Your task to perform on an android device: toggle pop-ups in chrome Image 0: 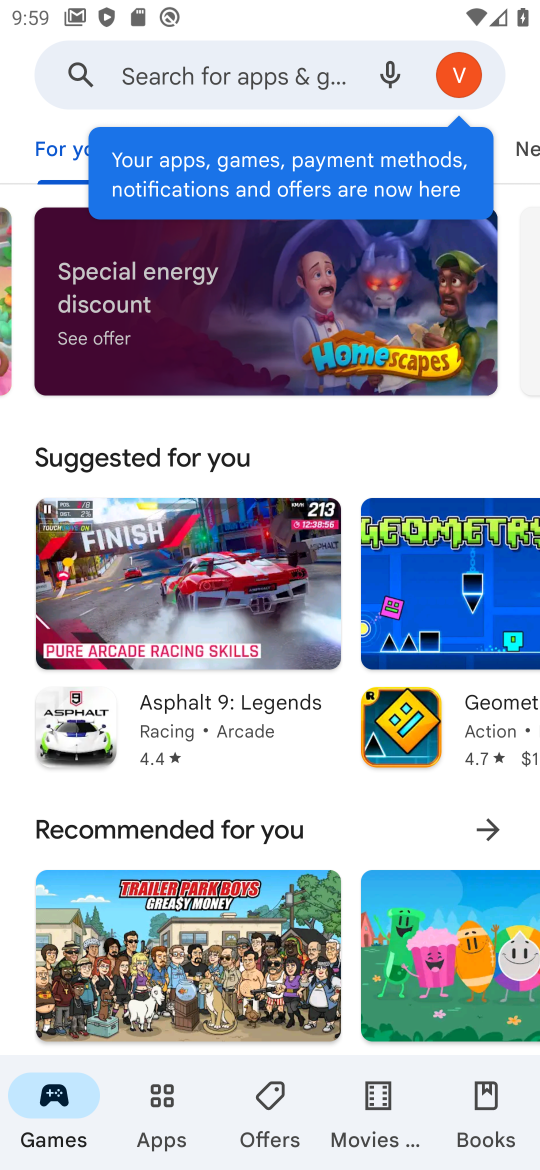
Step 0: press home button
Your task to perform on an android device: toggle pop-ups in chrome Image 1: 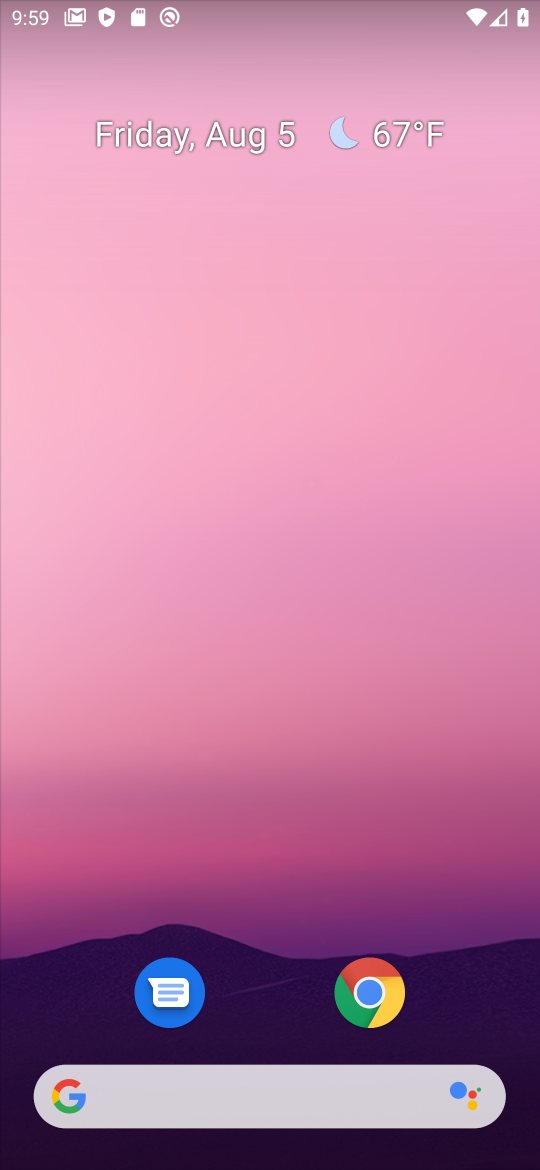
Step 1: click (364, 995)
Your task to perform on an android device: toggle pop-ups in chrome Image 2: 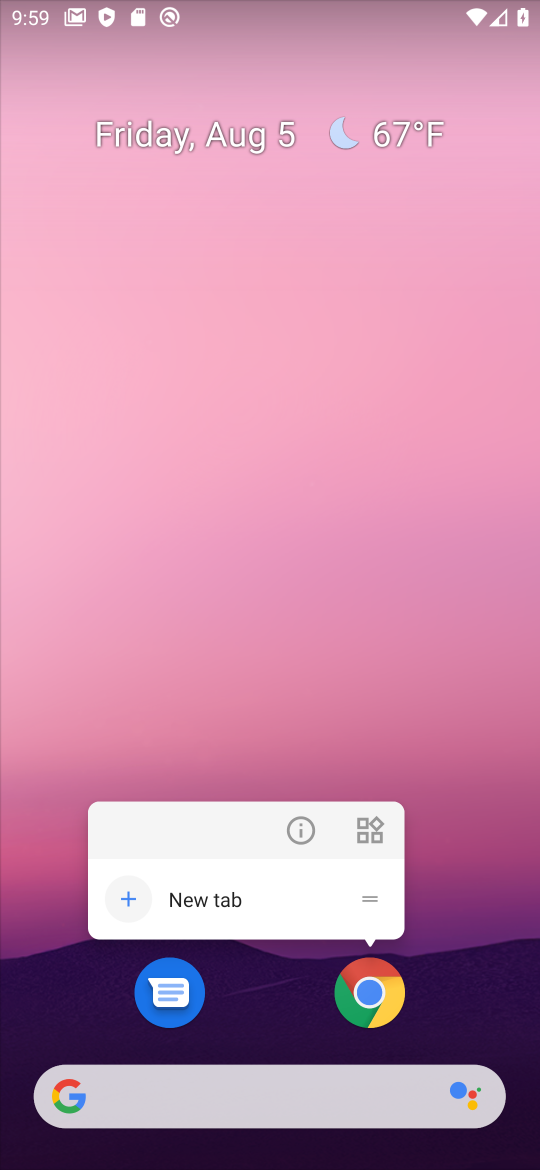
Step 2: click (371, 1001)
Your task to perform on an android device: toggle pop-ups in chrome Image 3: 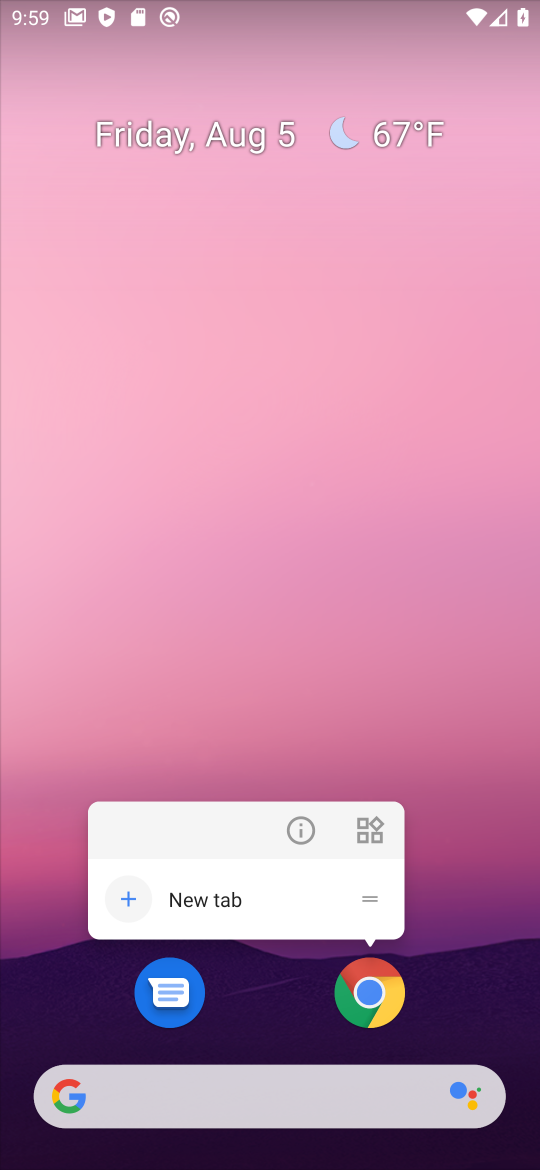
Step 3: click (371, 1001)
Your task to perform on an android device: toggle pop-ups in chrome Image 4: 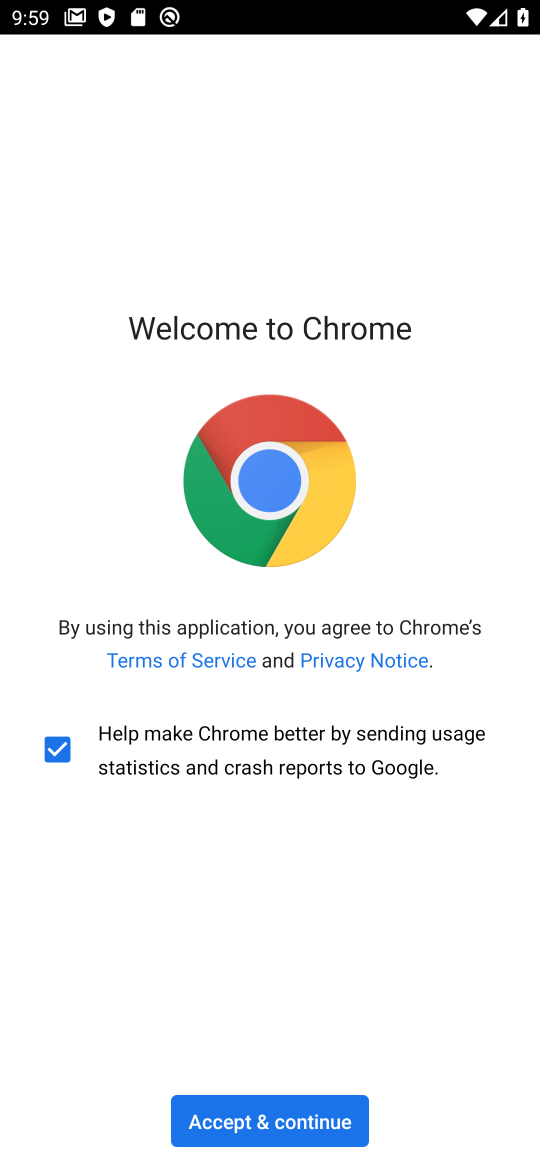
Step 4: click (318, 1116)
Your task to perform on an android device: toggle pop-ups in chrome Image 5: 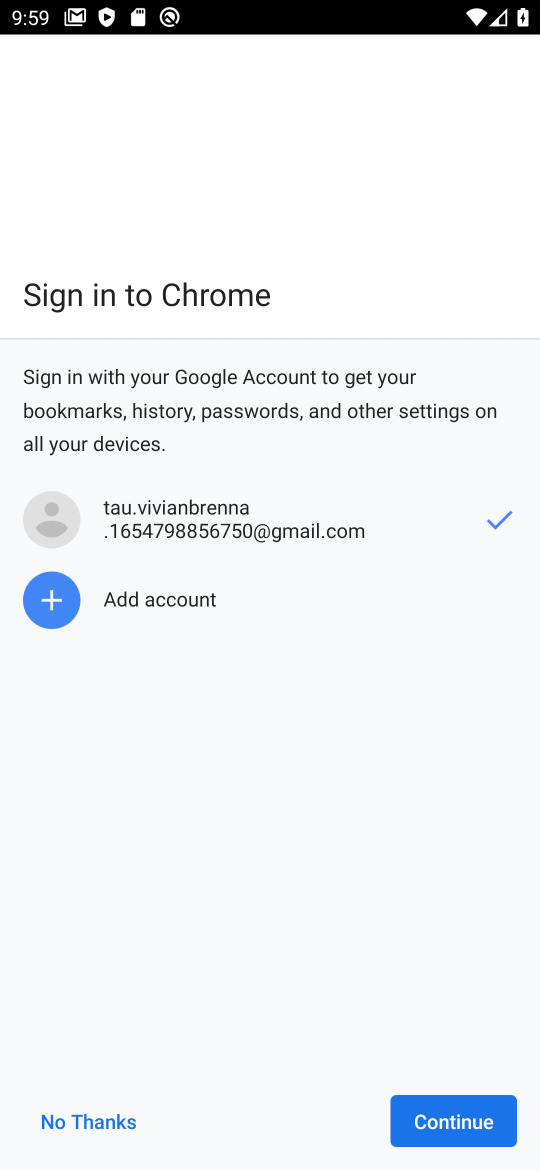
Step 5: click (115, 1126)
Your task to perform on an android device: toggle pop-ups in chrome Image 6: 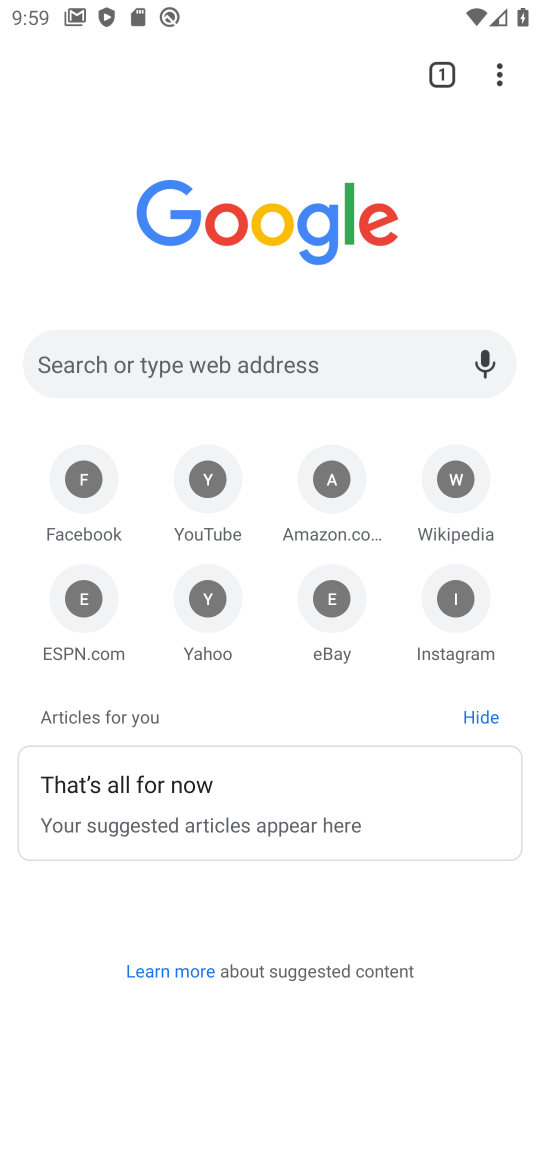
Step 6: drag from (501, 81) to (283, 639)
Your task to perform on an android device: toggle pop-ups in chrome Image 7: 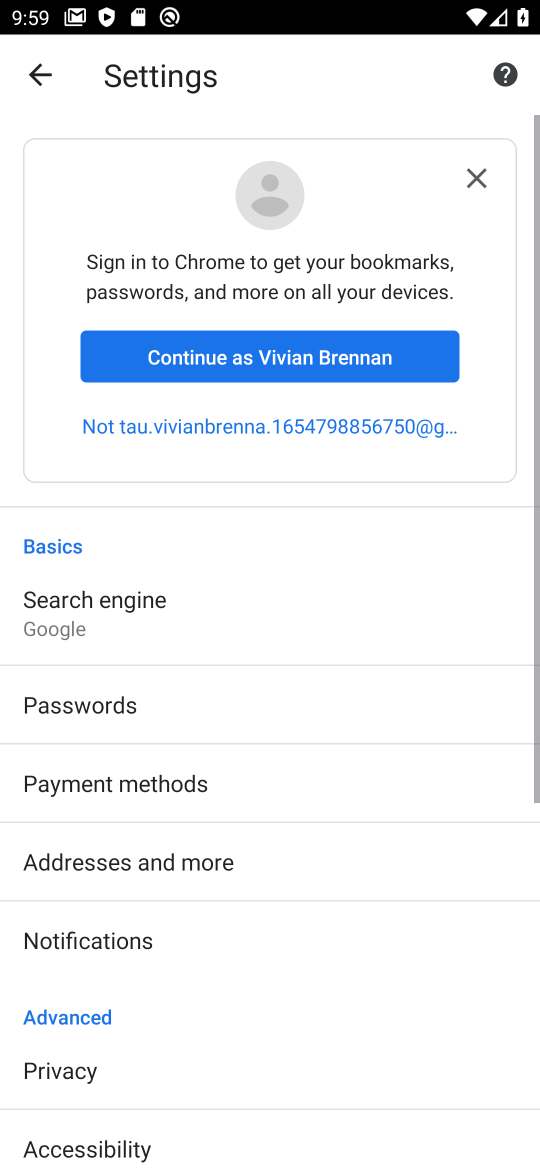
Step 7: drag from (195, 982) to (283, 239)
Your task to perform on an android device: toggle pop-ups in chrome Image 8: 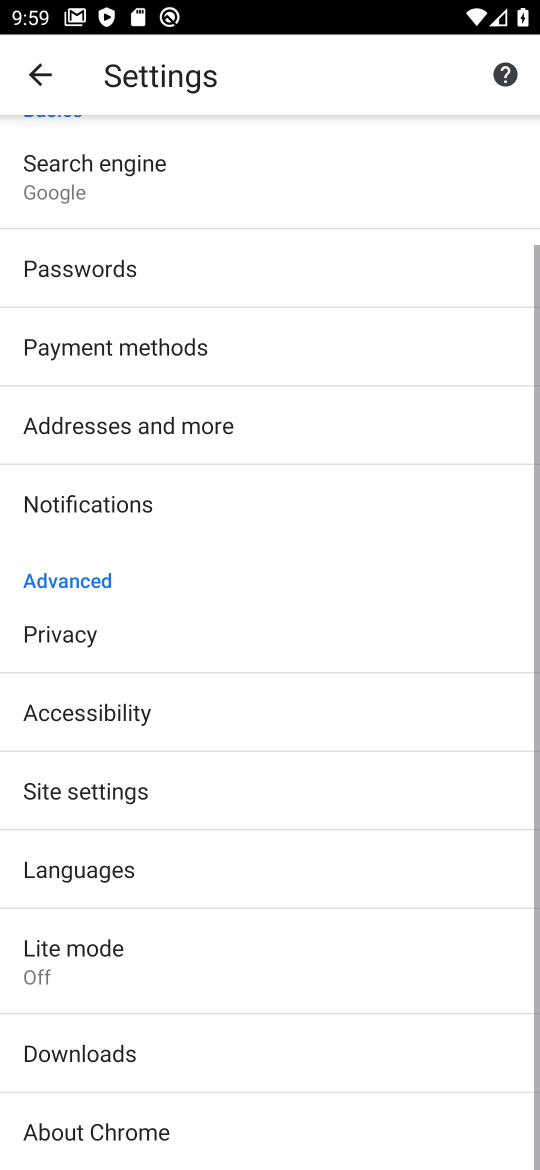
Step 8: click (114, 803)
Your task to perform on an android device: toggle pop-ups in chrome Image 9: 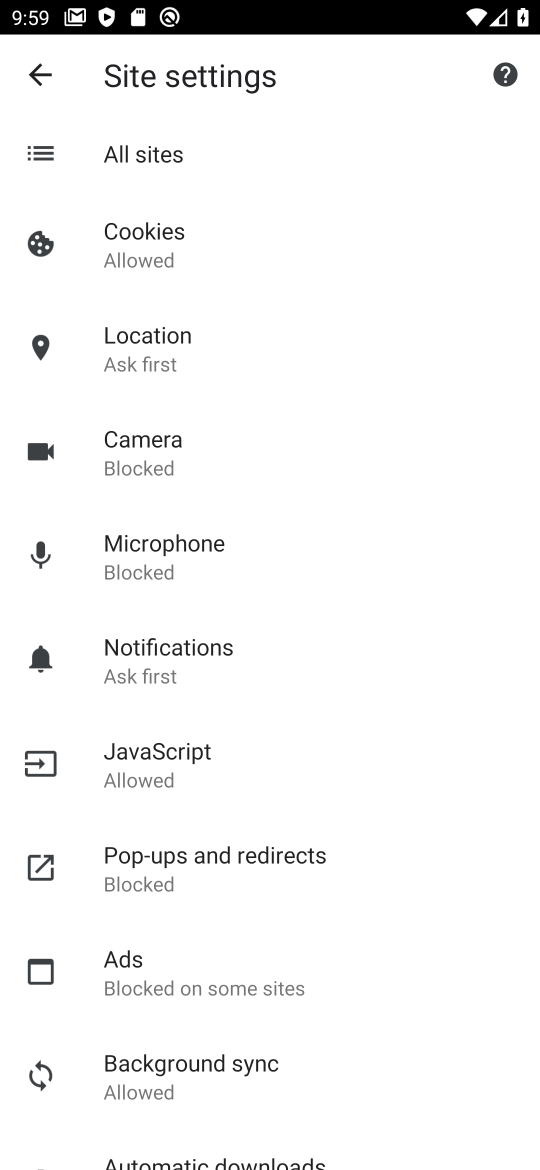
Step 9: click (198, 862)
Your task to perform on an android device: toggle pop-ups in chrome Image 10: 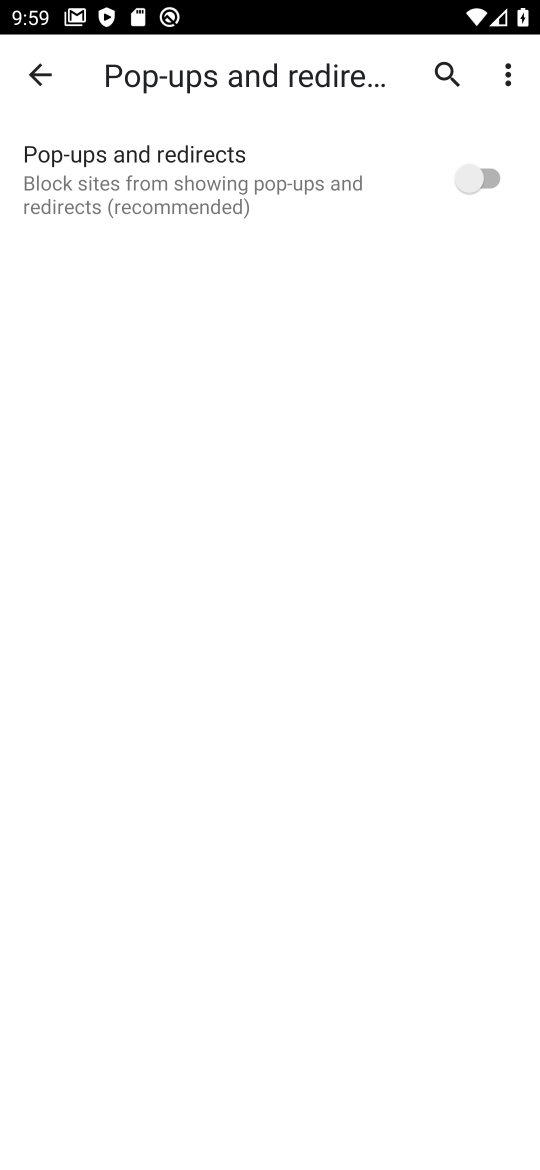
Step 10: click (476, 189)
Your task to perform on an android device: toggle pop-ups in chrome Image 11: 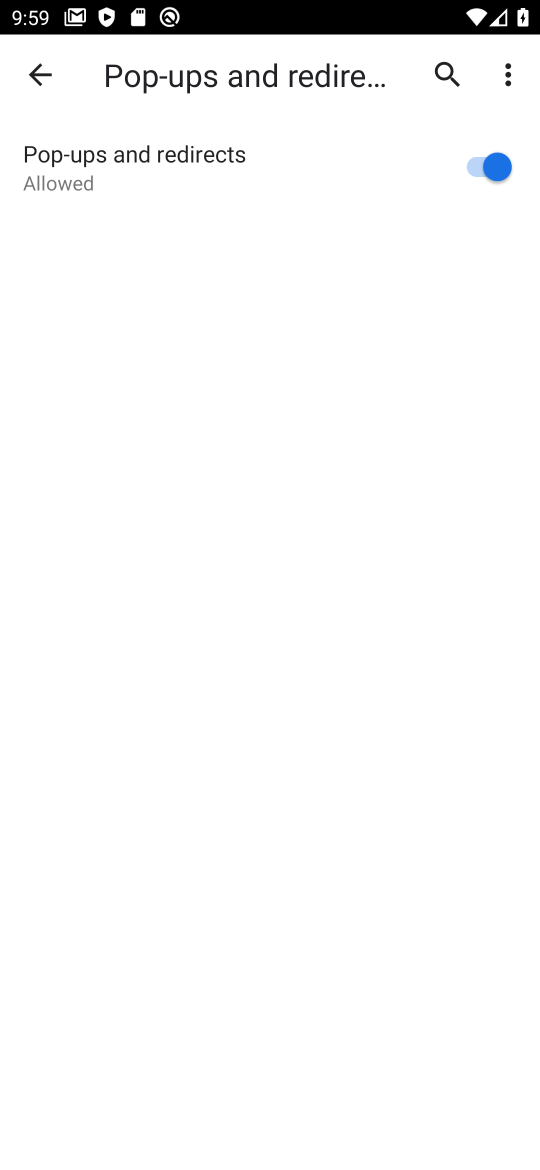
Step 11: task complete